Your task to perform on an android device: add a contact Image 0: 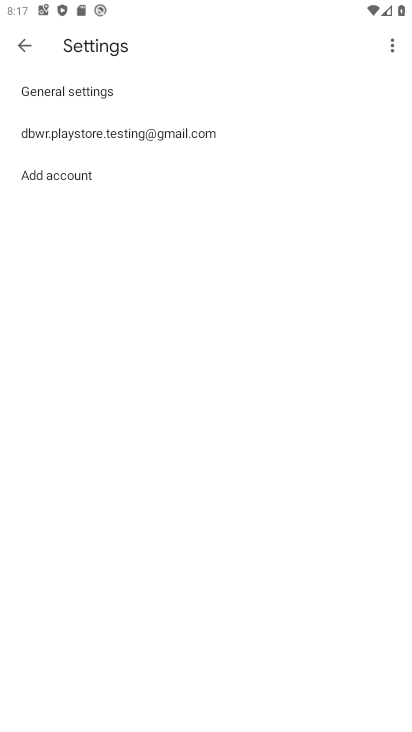
Step 0: press back button
Your task to perform on an android device: add a contact Image 1: 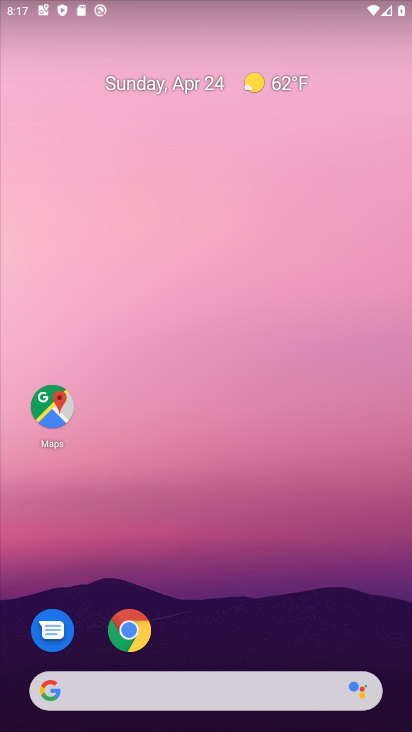
Step 1: drag from (250, 596) to (245, 6)
Your task to perform on an android device: add a contact Image 2: 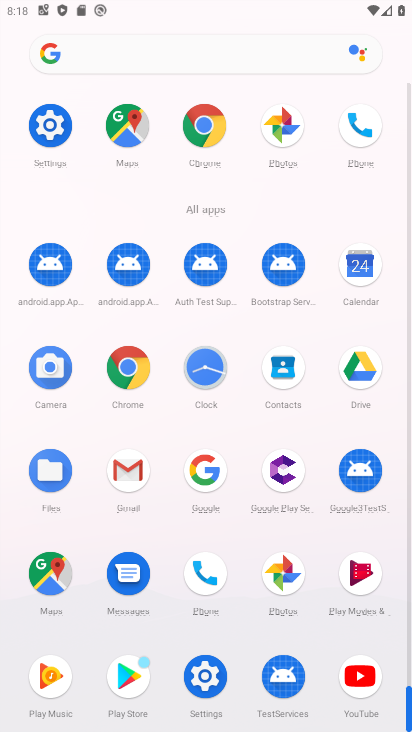
Step 2: click (282, 362)
Your task to perform on an android device: add a contact Image 3: 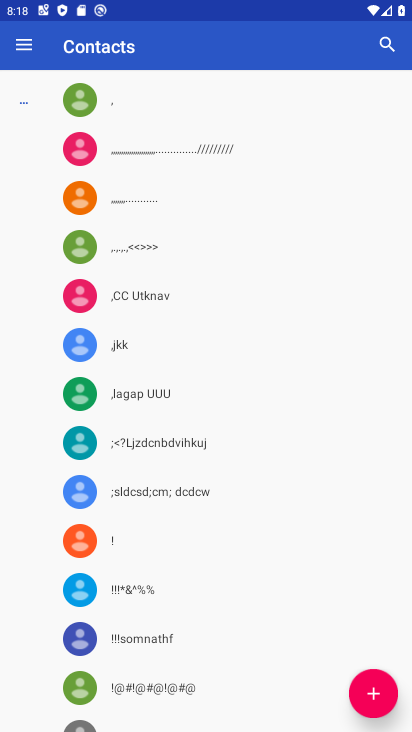
Step 3: click (368, 708)
Your task to perform on an android device: add a contact Image 4: 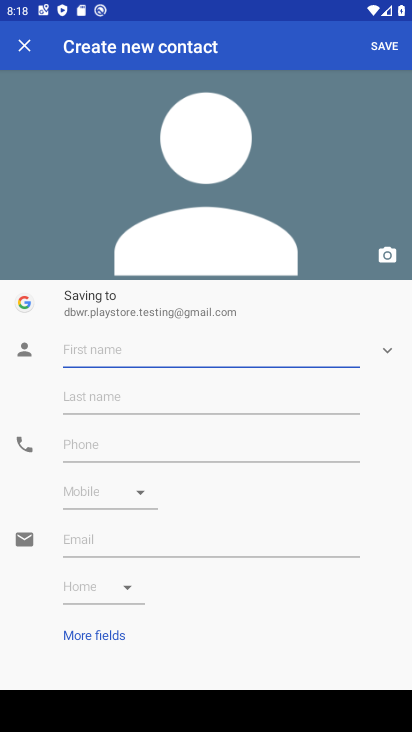
Step 4: type "Dgtr"
Your task to perform on an android device: add a contact Image 5: 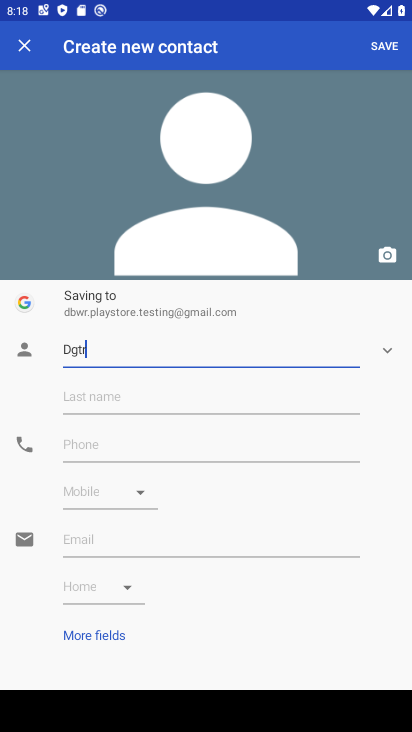
Step 5: type ""
Your task to perform on an android device: add a contact Image 6: 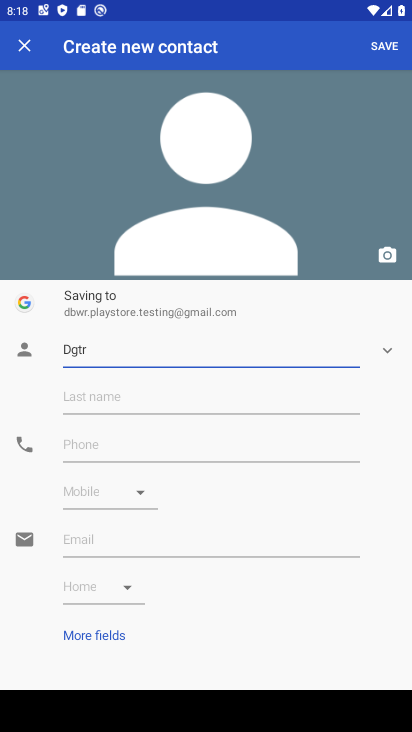
Step 6: click (151, 430)
Your task to perform on an android device: add a contact Image 7: 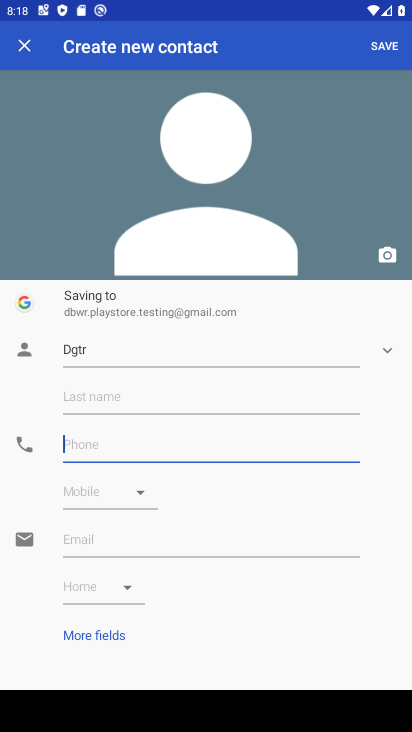
Step 7: type "54654344445657"
Your task to perform on an android device: add a contact Image 8: 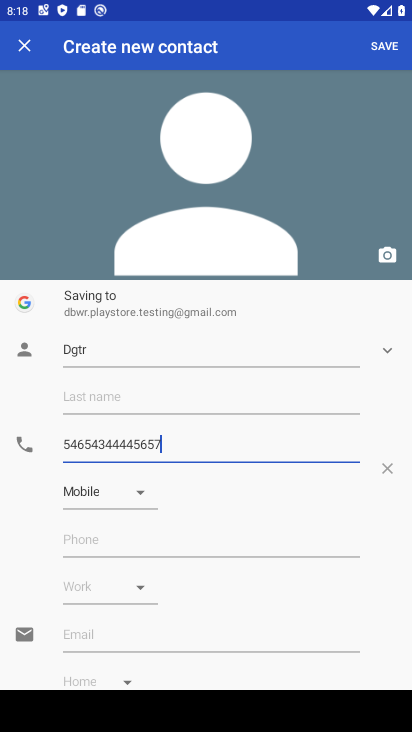
Step 8: click (402, 44)
Your task to perform on an android device: add a contact Image 9: 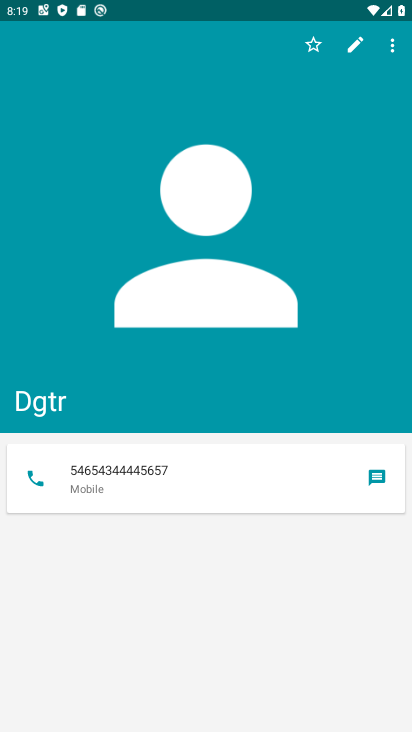
Step 9: task complete